Your task to perform on an android device: Go to network settings Image 0: 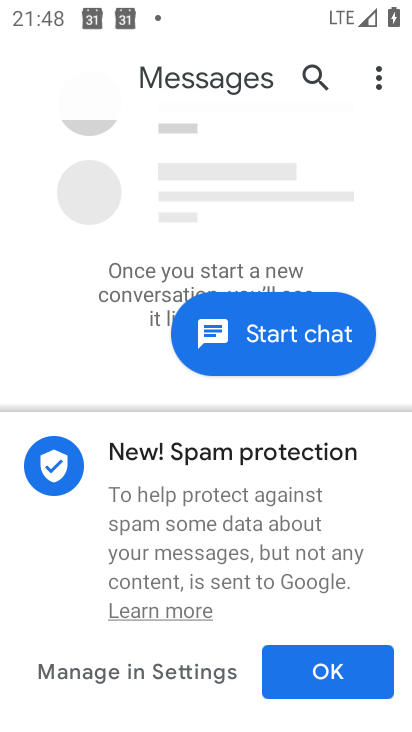
Step 0: press back button
Your task to perform on an android device: Go to network settings Image 1: 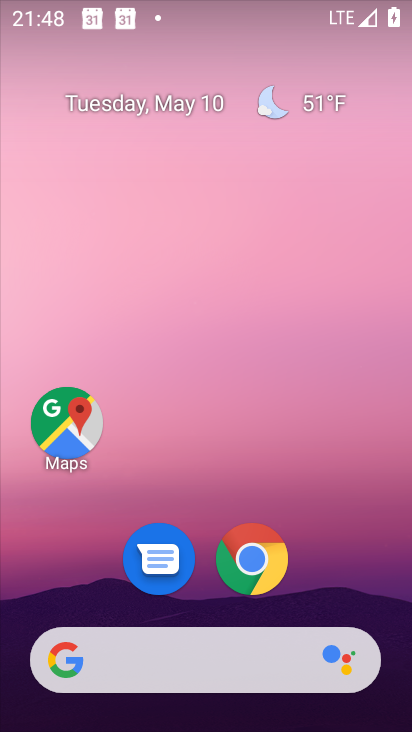
Step 1: drag from (329, 590) to (211, 105)
Your task to perform on an android device: Go to network settings Image 2: 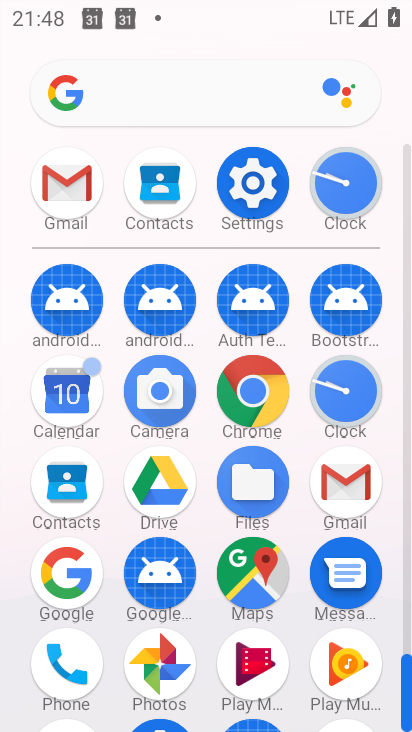
Step 2: click (253, 182)
Your task to perform on an android device: Go to network settings Image 3: 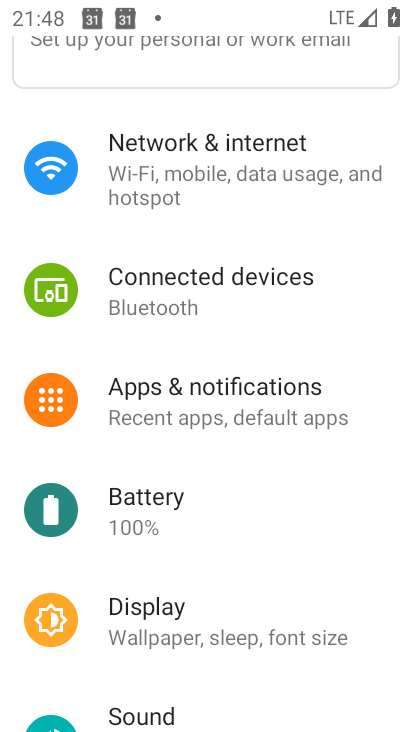
Step 3: click (230, 138)
Your task to perform on an android device: Go to network settings Image 4: 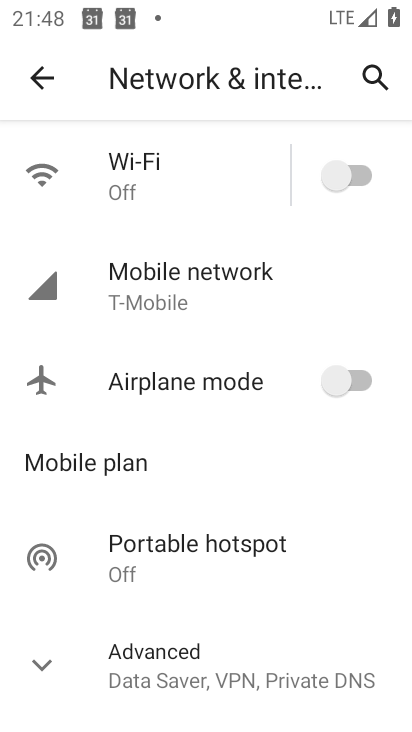
Step 4: click (180, 285)
Your task to perform on an android device: Go to network settings Image 5: 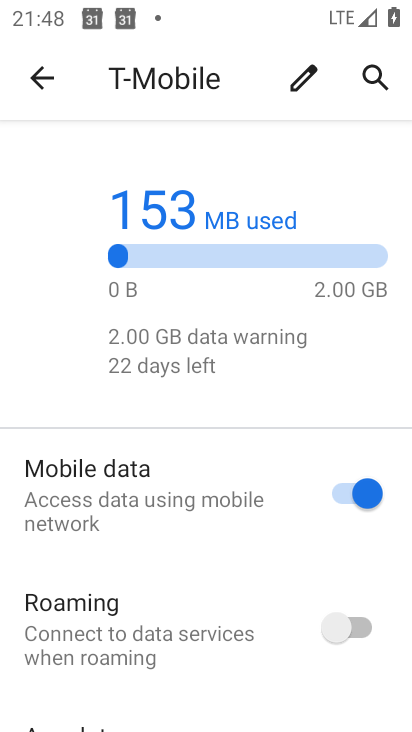
Step 5: task complete